Your task to perform on an android device: Search for vegetarian restaurants on Maps Image 0: 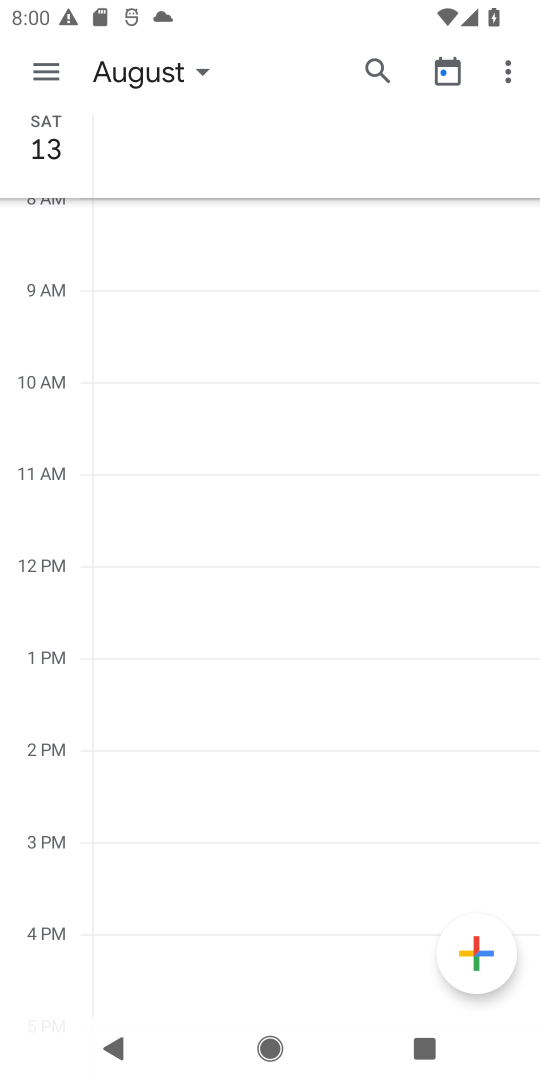
Step 0: press home button
Your task to perform on an android device: Search for vegetarian restaurants on Maps Image 1: 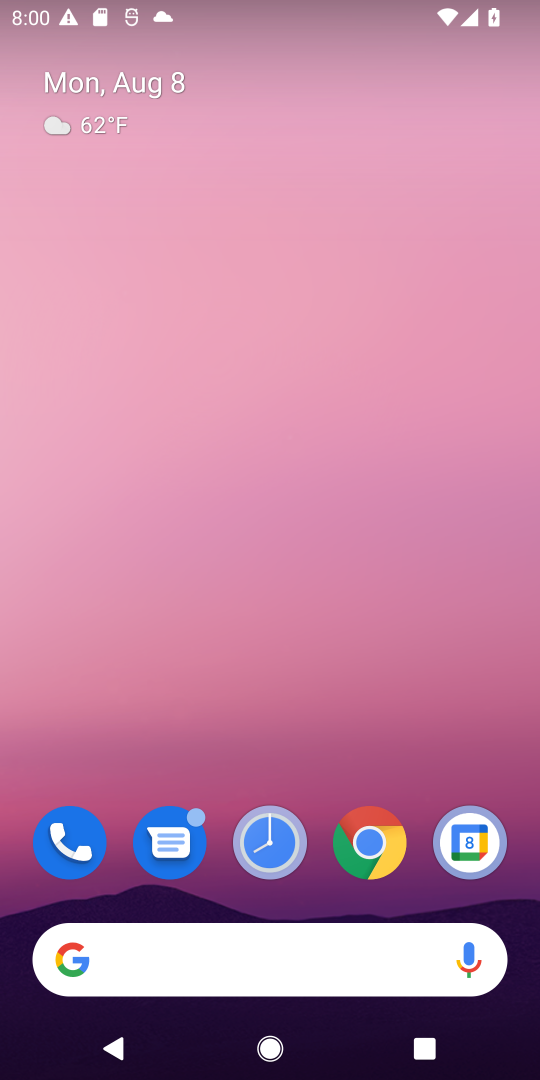
Step 1: drag from (282, 758) to (368, 20)
Your task to perform on an android device: Search for vegetarian restaurants on Maps Image 2: 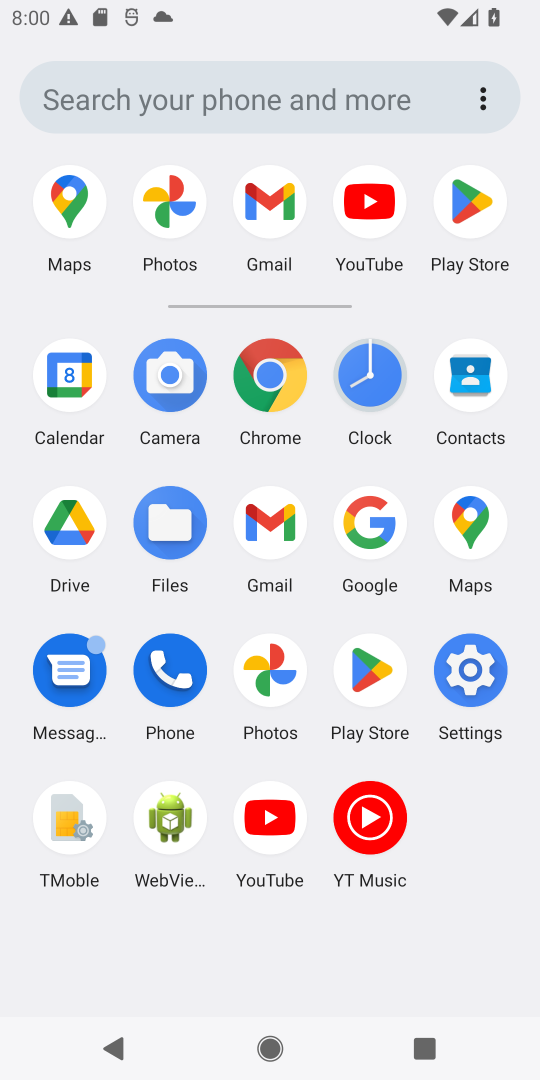
Step 2: click (463, 526)
Your task to perform on an android device: Search for vegetarian restaurants on Maps Image 3: 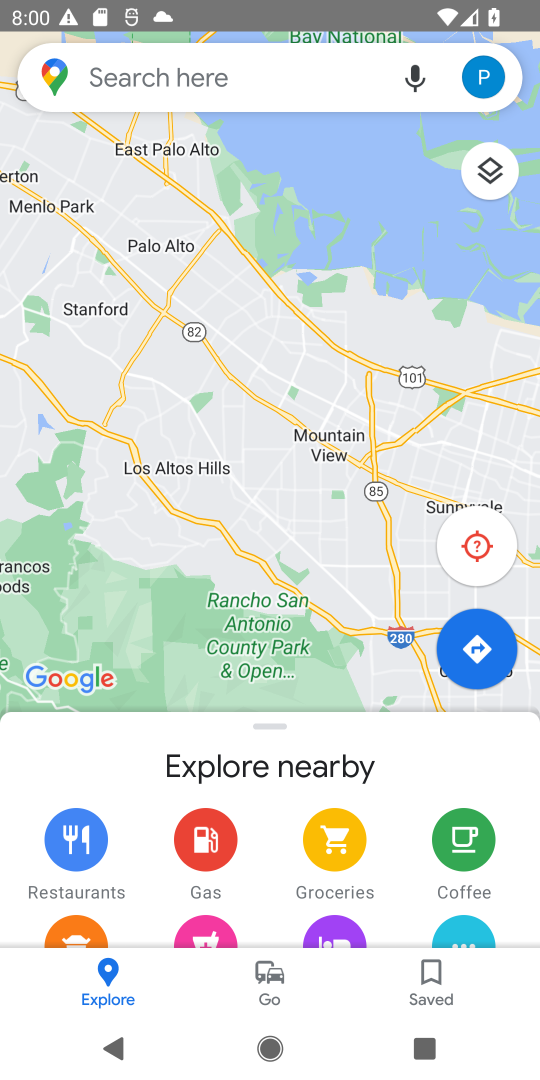
Step 3: click (228, 52)
Your task to perform on an android device: Search for vegetarian restaurants on Maps Image 4: 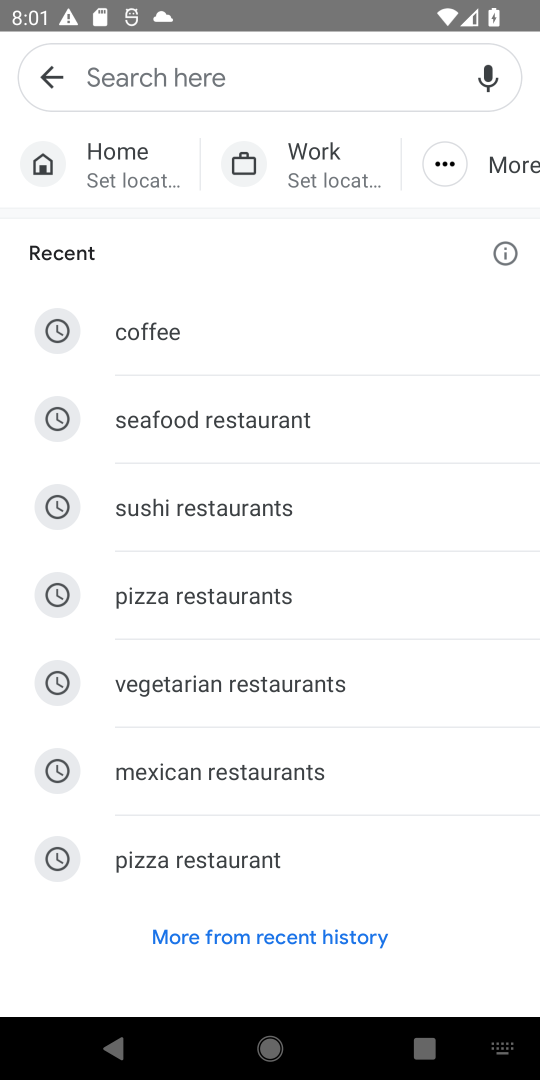
Step 4: click (251, 681)
Your task to perform on an android device: Search for vegetarian restaurants on Maps Image 5: 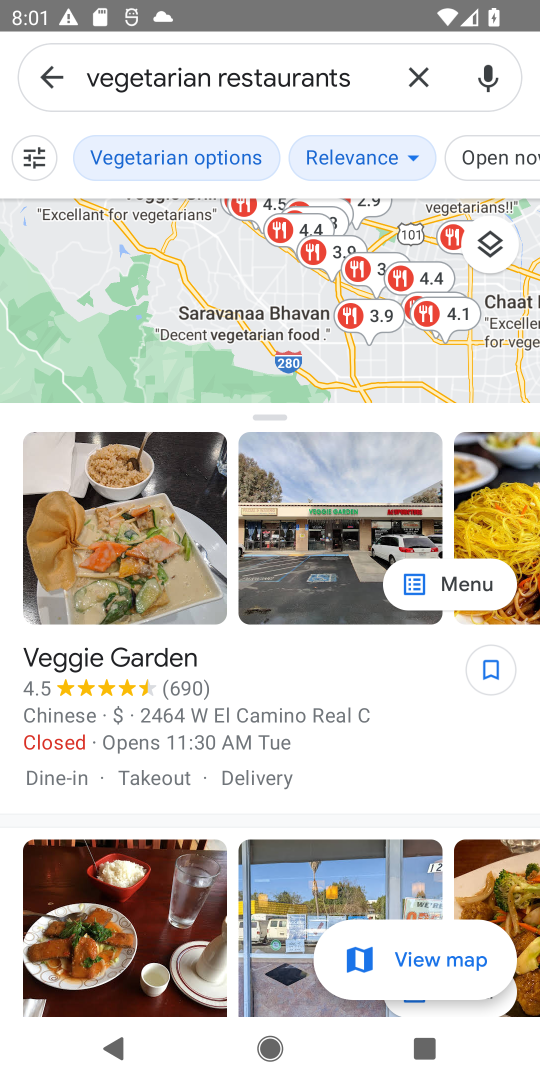
Step 5: task complete